Your task to perform on an android device: snooze an email in the gmail app Image 0: 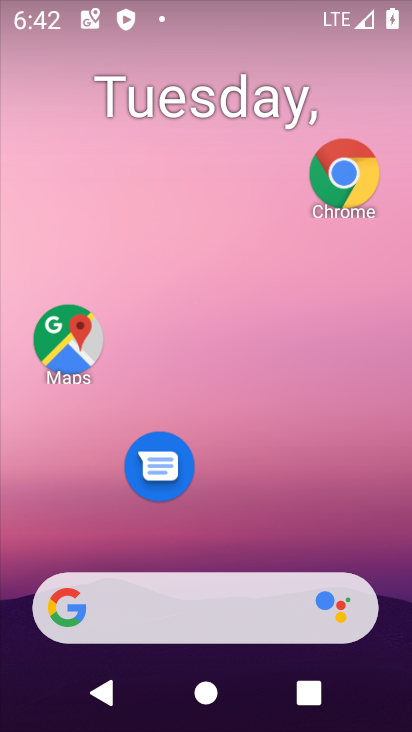
Step 0: press home button
Your task to perform on an android device: snooze an email in the gmail app Image 1: 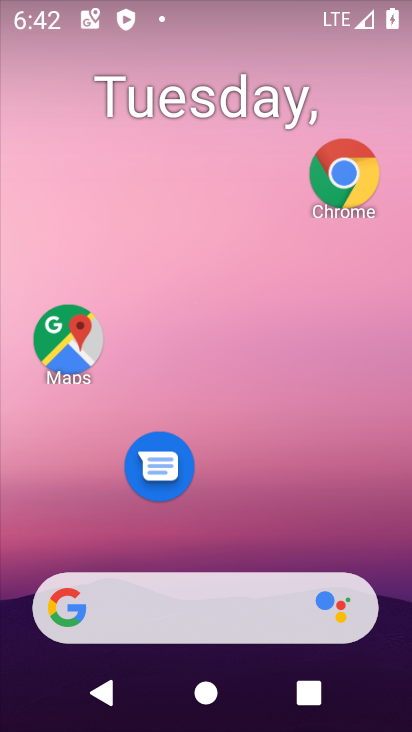
Step 1: drag from (354, 520) to (347, 243)
Your task to perform on an android device: snooze an email in the gmail app Image 2: 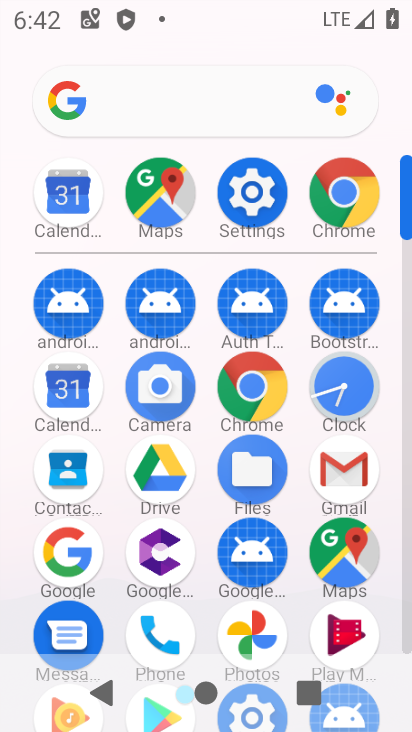
Step 2: click (344, 491)
Your task to perform on an android device: snooze an email in the gmail app Image 3: 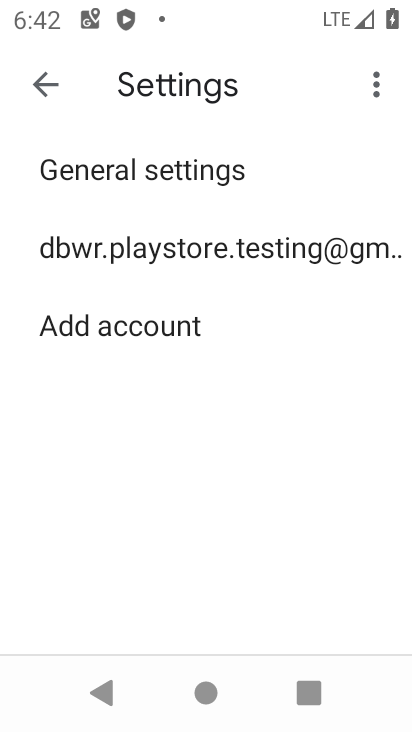
Step 3: click (55, 74)
Your task to perform on an android device: snooze an email in the gmail app Image 4: 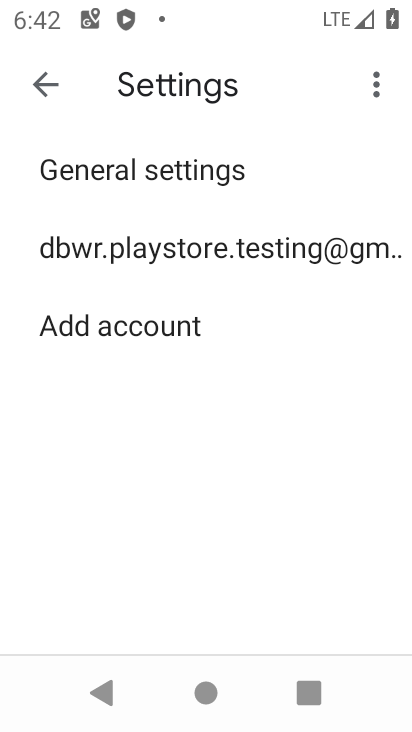
Step 4: click (62, 87)
Your task to perform on an android device: snooze an email in the gmail app Image 5: 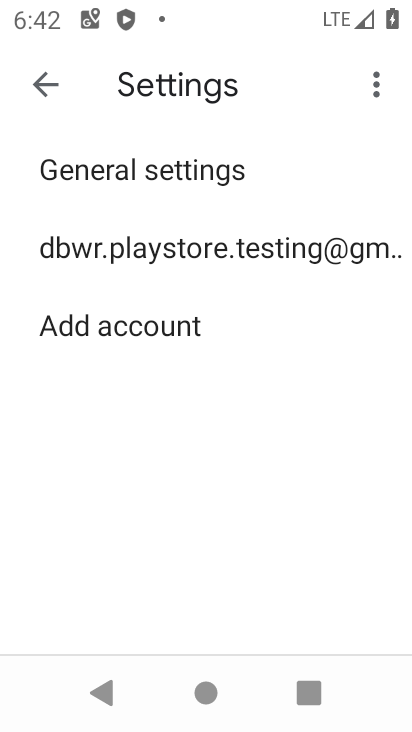
Step 5: click (62, 87)
Your task to perform on an android device: snooze an email in the gmail app Image 6: 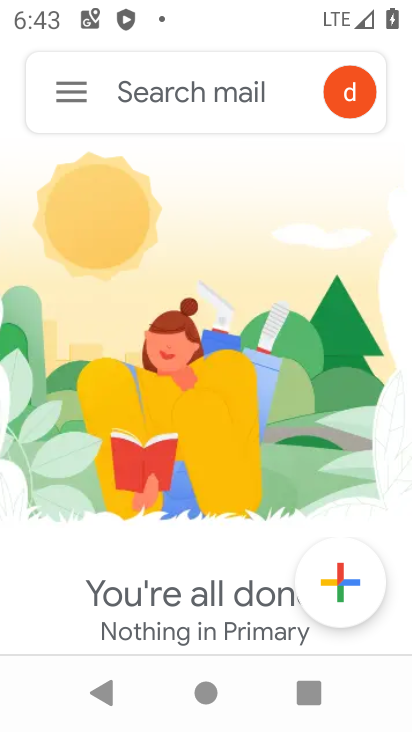
Step 6: click (62, 87)
Your task to perform on an android device: snooze an email in the gmail app Image 7: 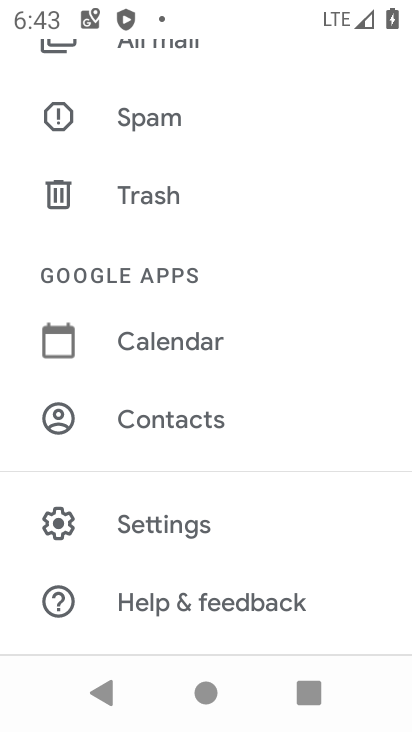
Step 7: task complete